Your task to perform on an android device: toggle airplane mode Image 0: 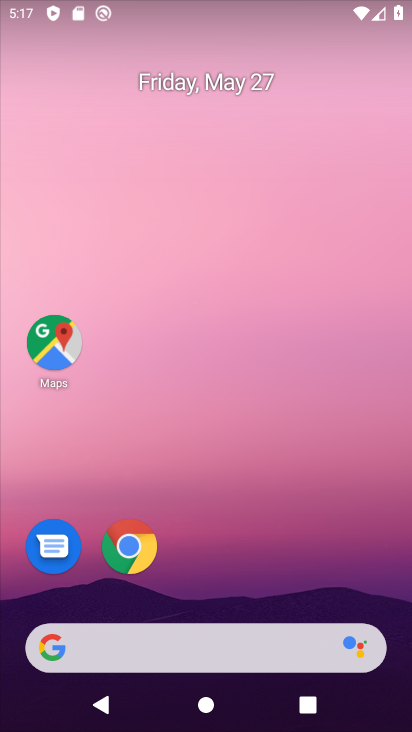
Step 0: drag from (262, 583) to (272, 146)
Your task to perform on an android device: toggle airplane mode Image 1: 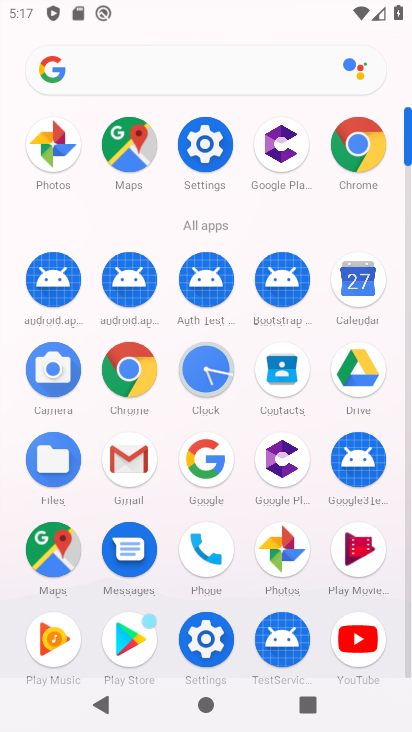
Step 1: click (199, 135)
Your task to perform on an android device: toggle airplane mode Image 2: 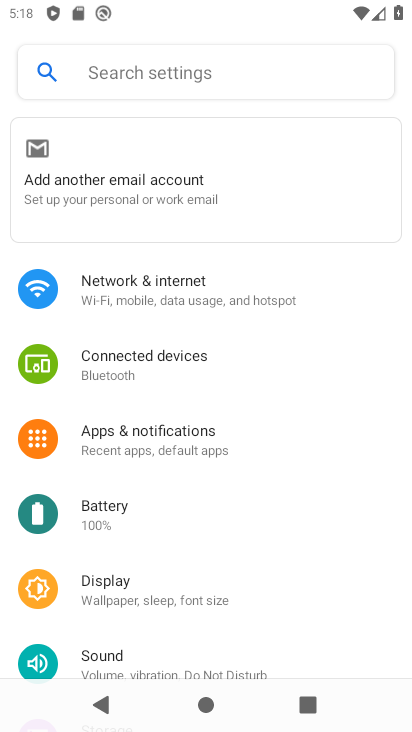
Step 2: click (162, 301)
Your task to perform on an android device: toggle airplane mode Image 3: 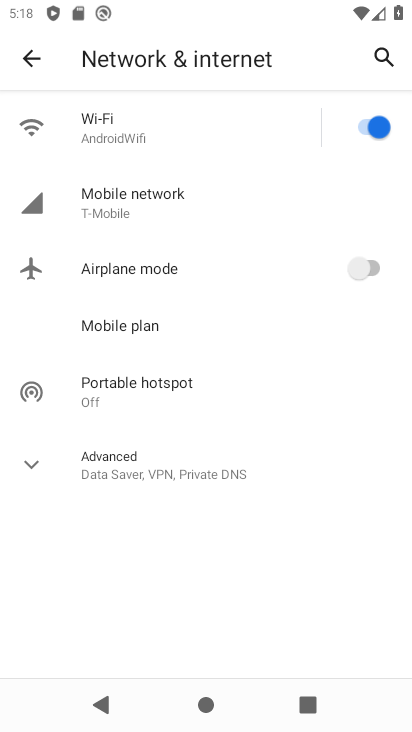
Step 3: click (374, 270)
Your task to perform on an android device: toggle airplane mode Image 4: 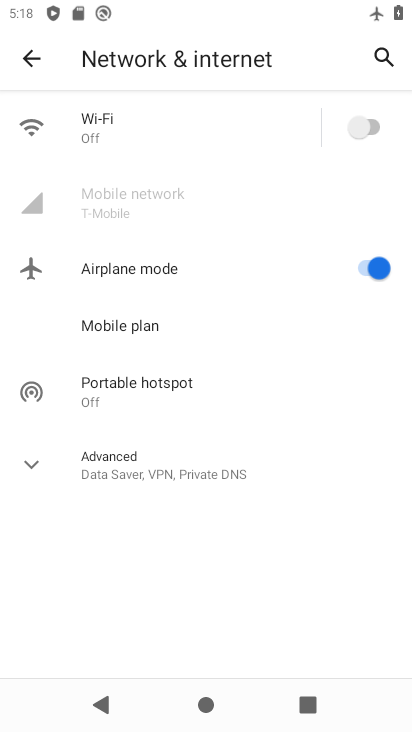
Step 4: task complete